Your task to perform on an android device: Open Yahoo.com Image 0: 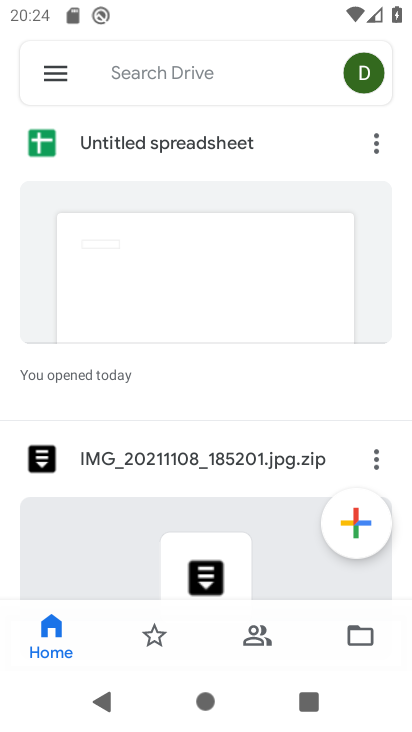
Step 0: press home button
Your task to perform on an android device: Open Yahoo.com Image 1: 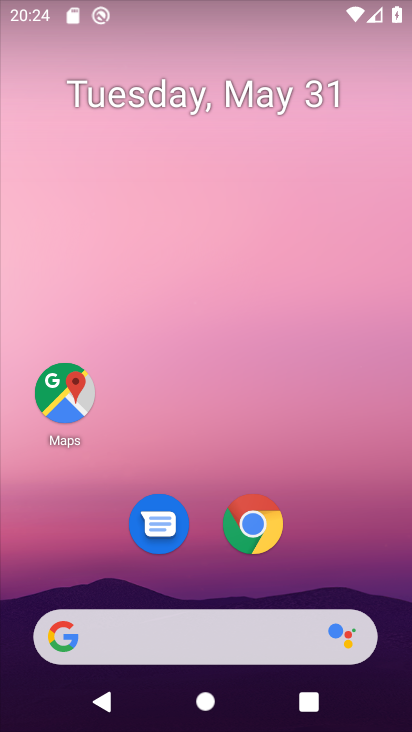
Step 1: click (283, 645)
Your task to perform on an android device: Open Yahoo.com Image 2: 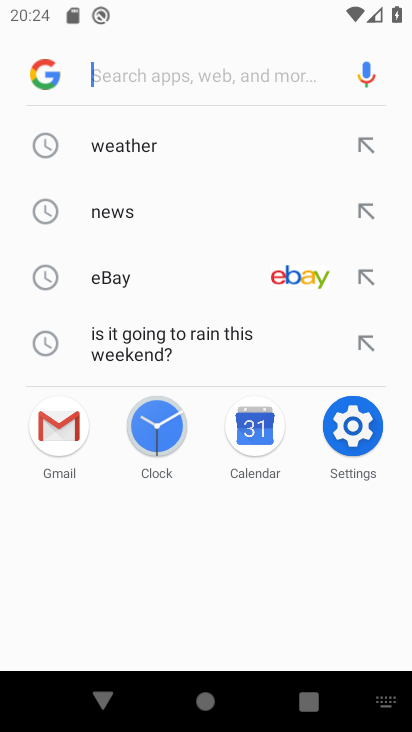
Step 2: type "yahoo.com"
Your task to perform on an android device: Open Yahoo.com Image 3: 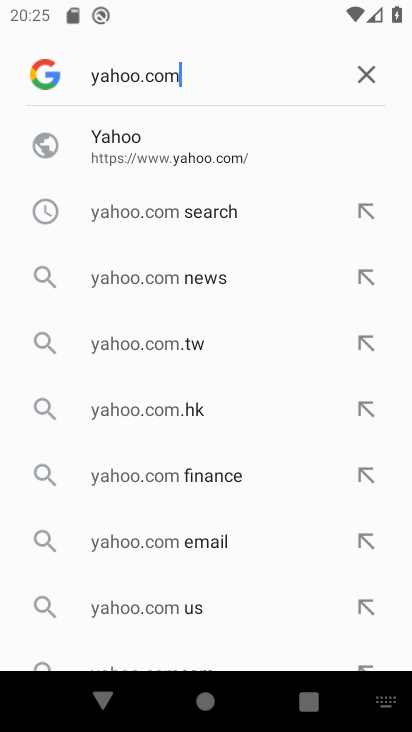
Step 3: click (119, 149)
Your task to perform on an android device: Open Yahoo.com Image 4: 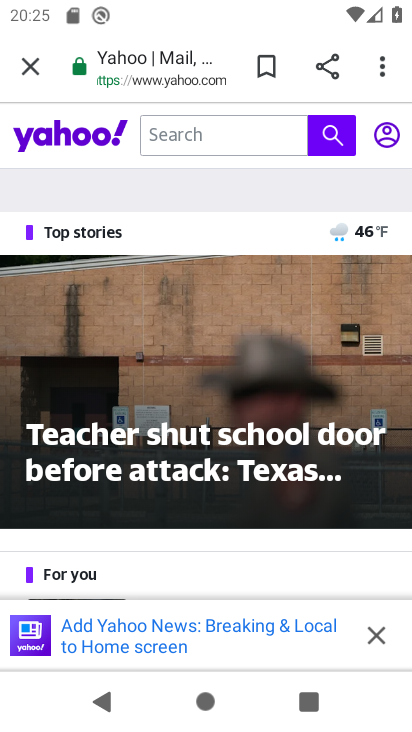
Step 4: task complete